Your task to perform on an android device: Go to notification settings Image 0: 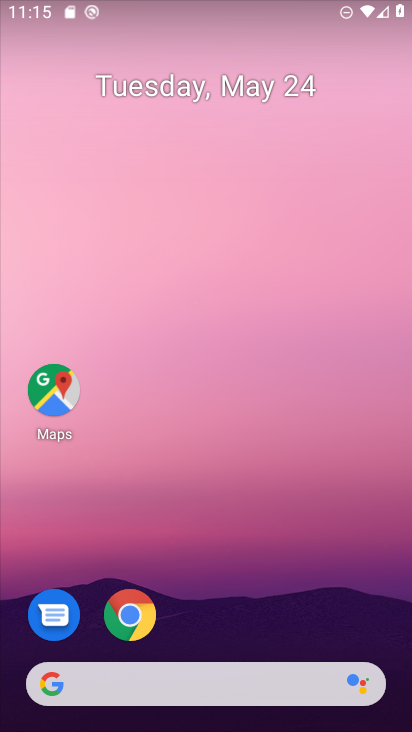
Step 0: drag from (277, 707) to (348, 46)
Your task to perform on an android device: Go to notification settings Image 1: 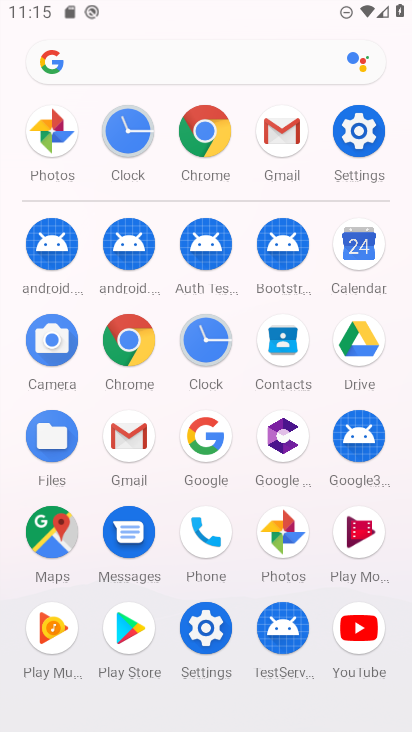
Step 1: click (352, 137)
Your task to perform on an android device: Go to notification settings Image 2: 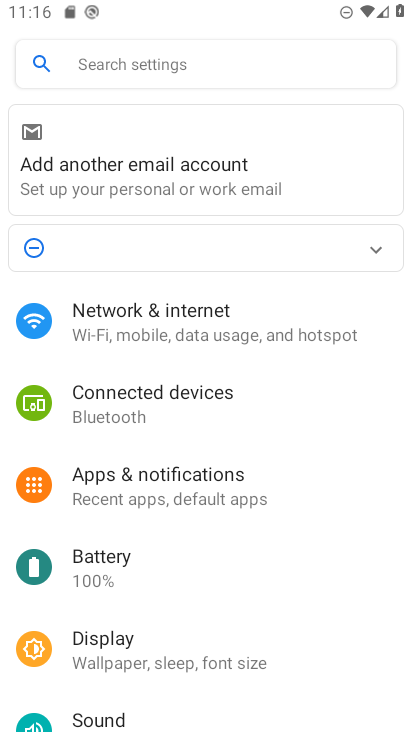
Step 2: click (190, 55)
Your task to perform on an android device: Go to notification settings Image 3: 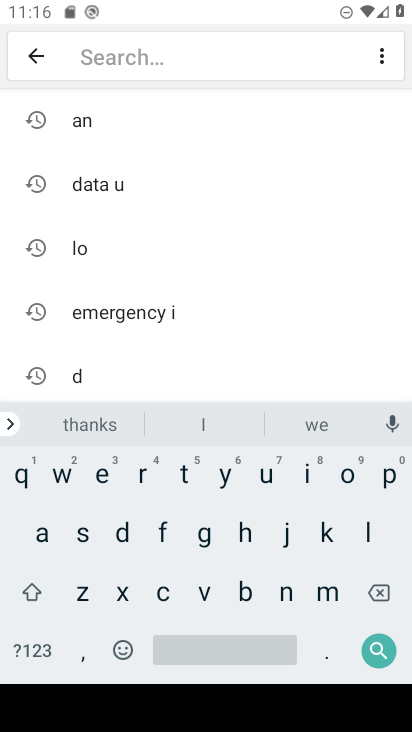
Step 3: click (276, 592)
Your task to perform on an android device: Go to notification settings Image 4: 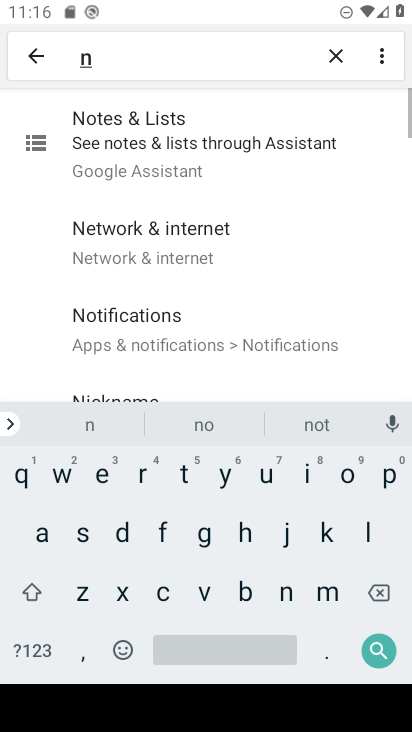
Step 4: click (343, 471)
Your task to perform on an android device: Go to notification settings Image 5: 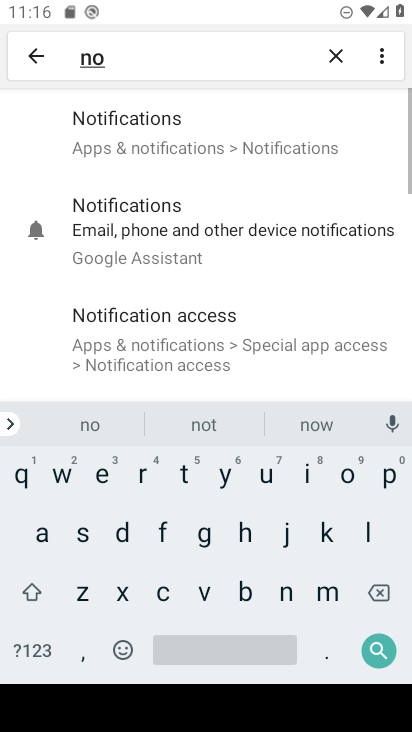
Step 5: click (163, 126)
Your task to perform on an android device: Go to notification settings Image 6: 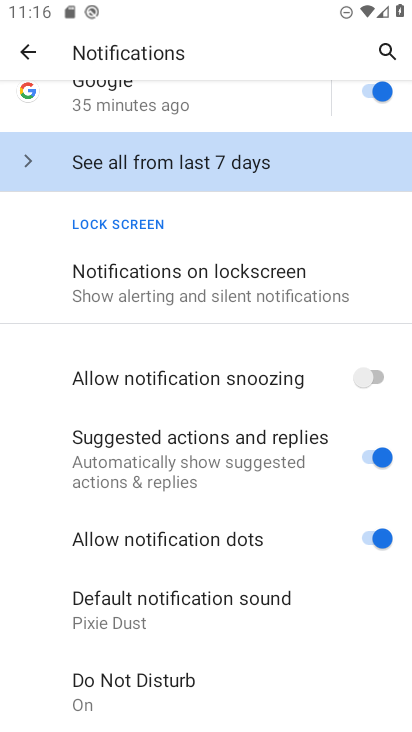
Step 6: click (138, 289)
Your task to perform on an android device: Go to notification settings Image 7: 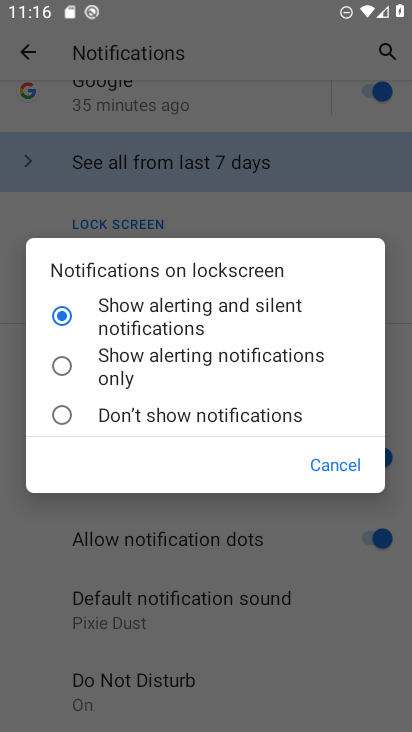
Step 7: task complete